Your task to perform on an android device: Is it going to rain today? Image 0: 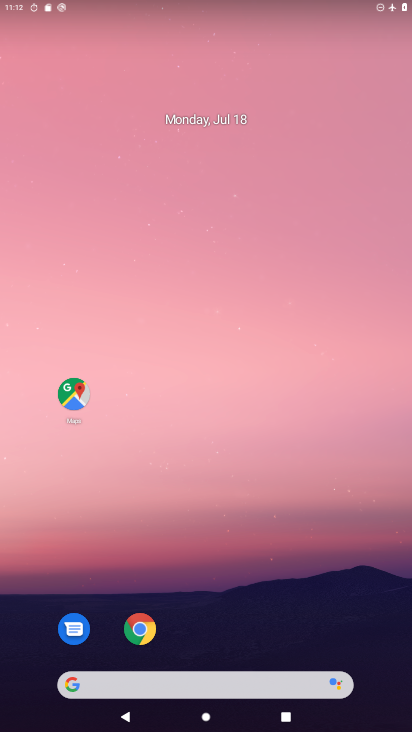
Step 0: drag from (286, 630) to (221, 171)
Your task to perform on an android device: Is it going to rain today? Image 1: 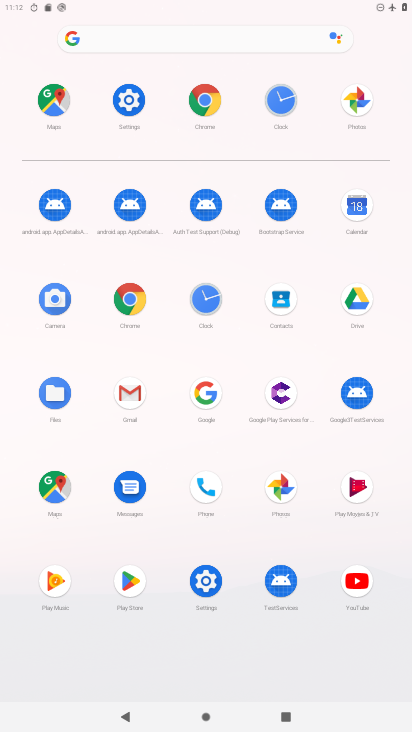
Step 1: click (209, 98)
Your task to perform on an android device: Is it going to rain today? Image 2: 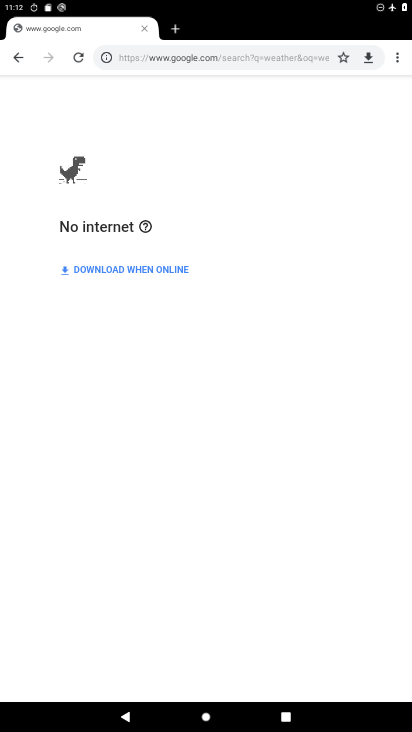
Step 2: click (259, 59)
Your task to perform on an android device: Is it going to rain today? Image 3: 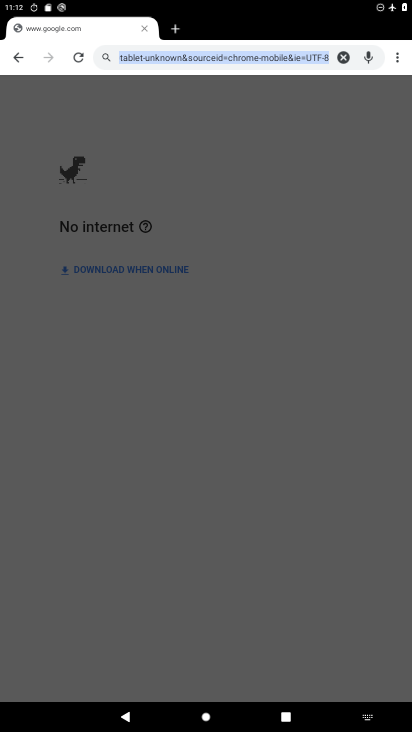
Step 3: type "weather"
Your task to perform on an android device: Is it going to rain today? Image 4: 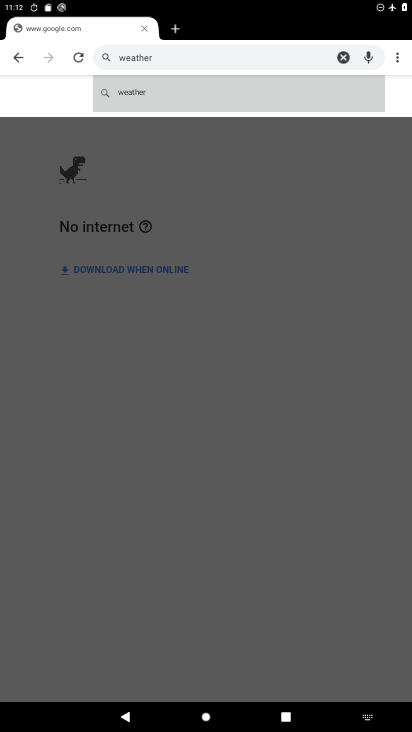
Step 4: click (137, 93)
Your task to perform on an android device: Is it going to rain today? Image 5: 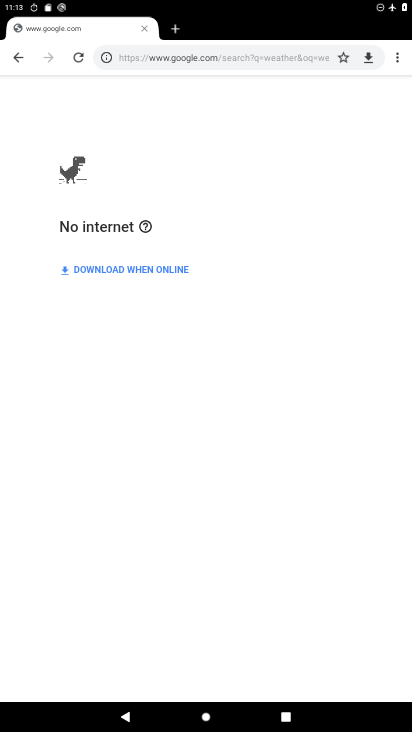
Step 5: task complete